Your task to perform on an android device: Go to display settings Image 0: 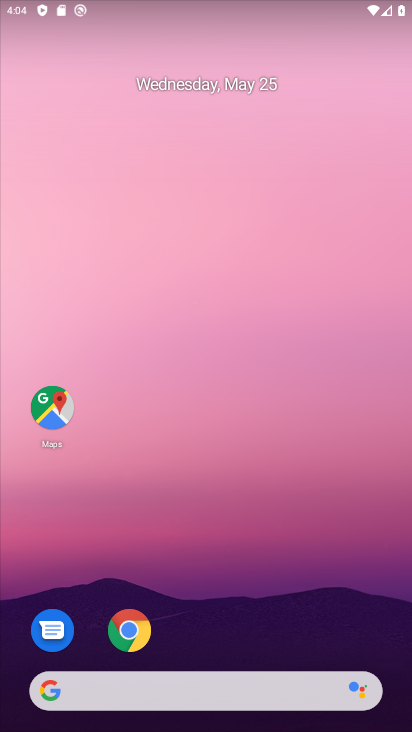
Step 0: drag from (277, 286) to (309, 109)
Your task to perform on an android device: Go to display settings Image 1: 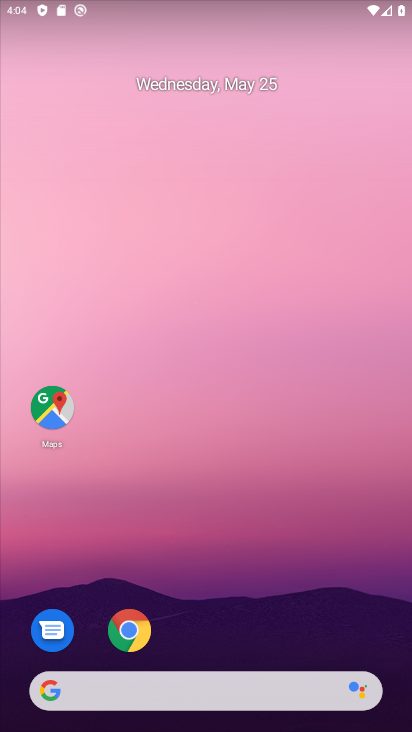
Step 1: drag from (260, 514) to (260, 60)
Your task to perform on an android device: Go to display settings Image 2: 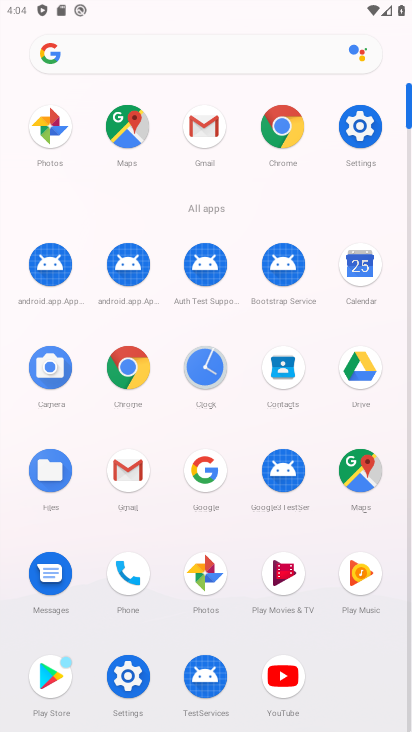
Step 2: click (363, 122)
Your task to perform on an android device: Go to display settings Image 3: 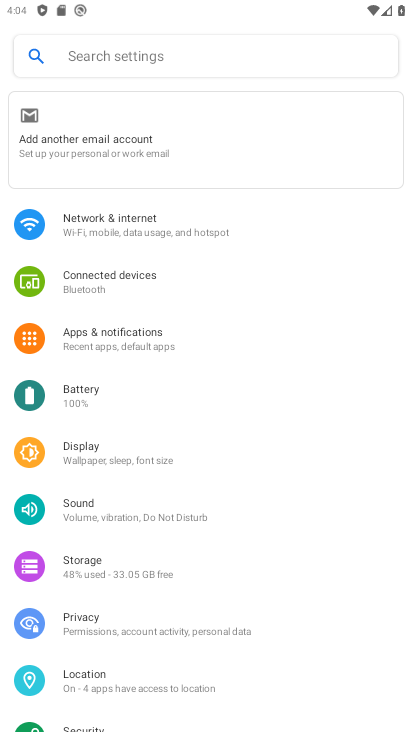
Step 3: click (124, 459)
Your task to perform on an android device: Go to display settings Image 4: 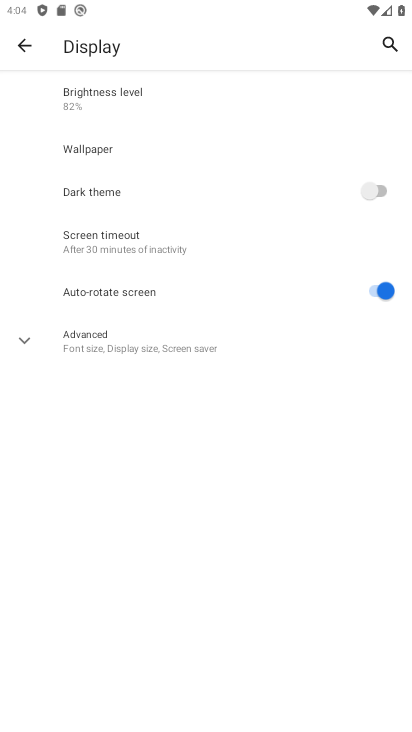
Step 4: task complete